Your task to perform on an android device: refresh tabs in the chrome app Image 0: 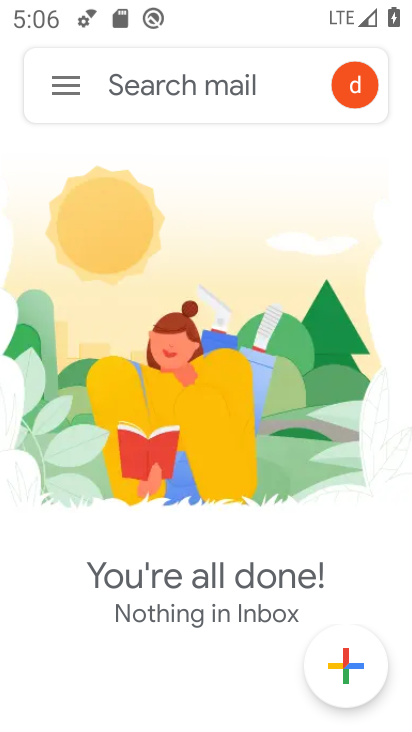
Step 0: press home button
Your task to perform on an android device: refresh tabs in the chrome app Image 1: 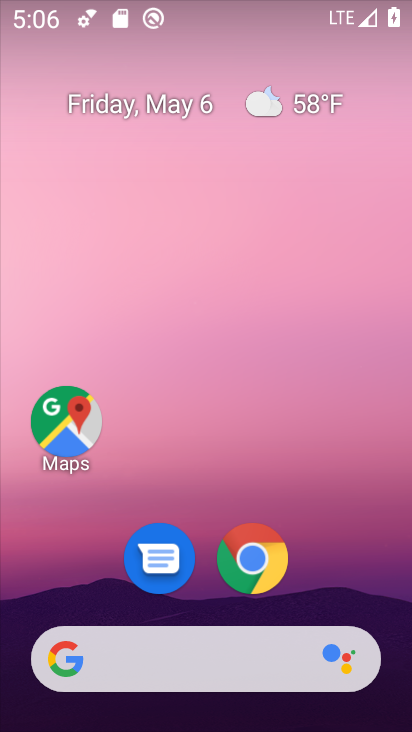
Step 1: click (244, 562)
Your task to perform on an android device: refresh tabs in the chrome app Image 2: 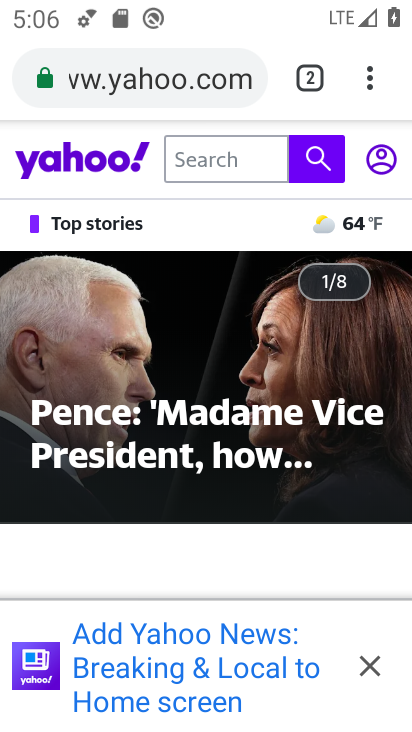
Step 2: click (370, 77)
Your task to perform on an android device: refresh tabs in the chrome app Image 3: 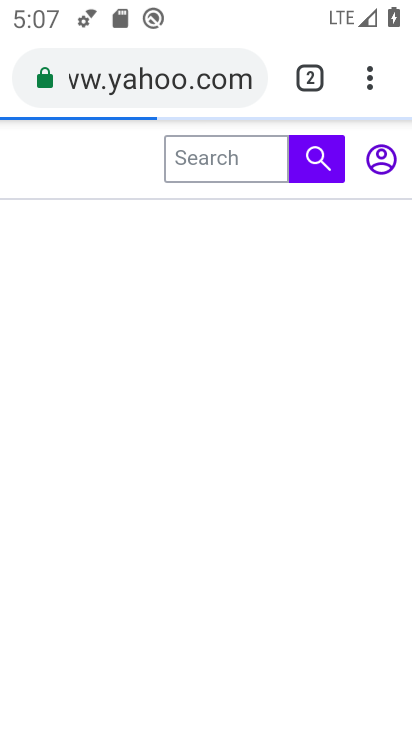
Step 3: click (374, 80)
Your task to perform on an android device: refresh tabs in the chrome app Image 4: 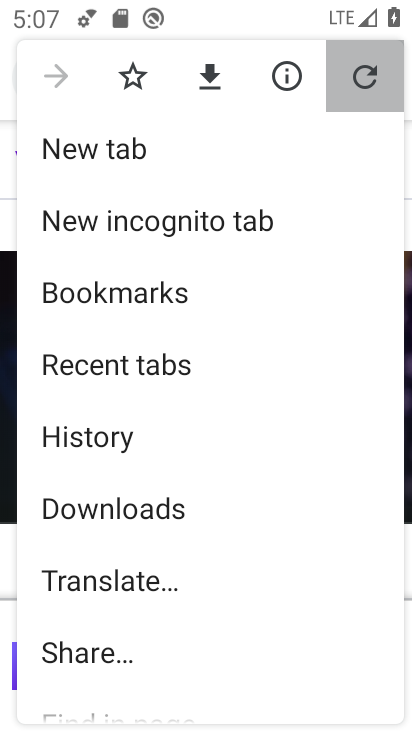
Step 4: click (379, 74)
Your task to perform on an android device: refresh tabs in the chrome app Image 5: 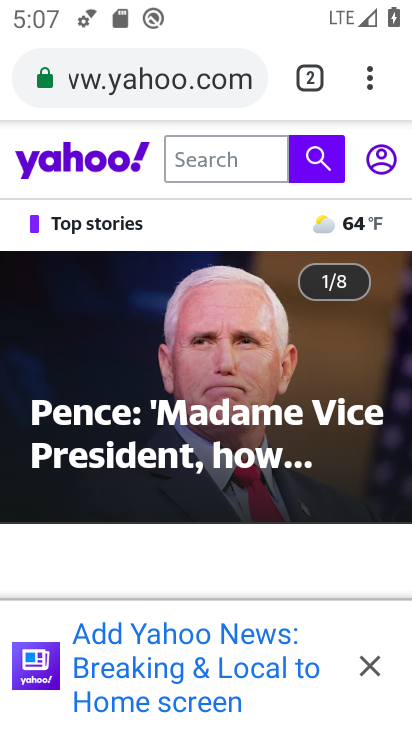
Step 5: task complete